Your task to perform on an android device: Open Wikipedia Image 0: 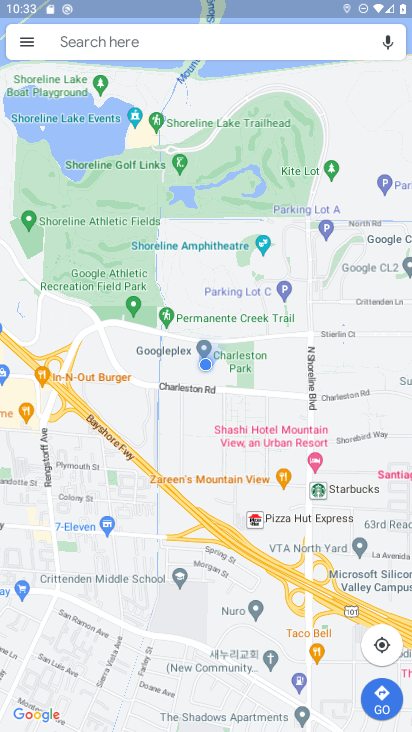
Step 0: press home button
Your task to perform on an android device: Open Wikipedia Image 1: 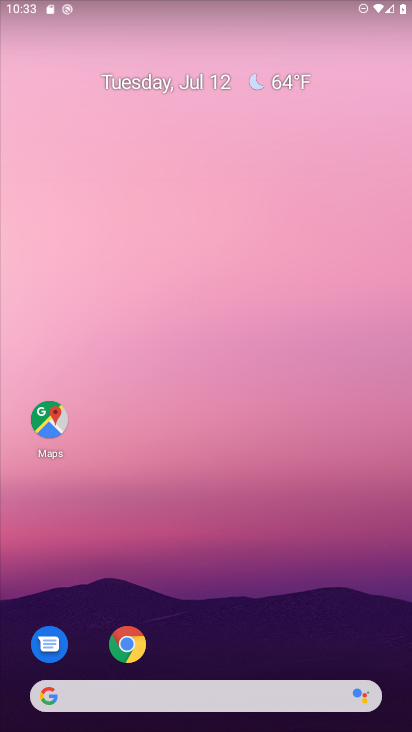
Step 1: click (153, 690)
Your task to perform on an android device: Open Wikipedia Image 2: 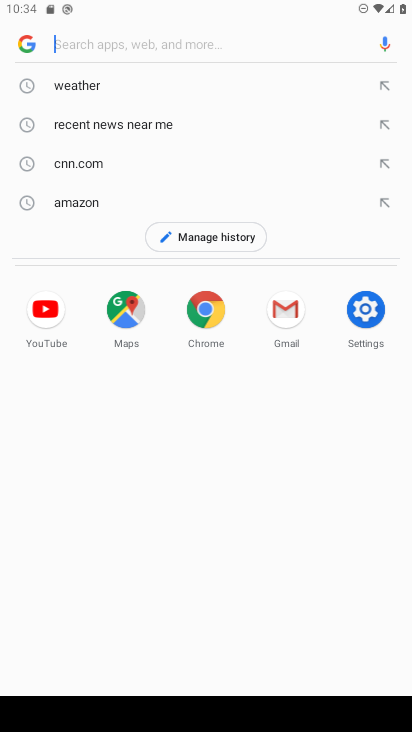
Step 2: type "wikipedia"
Your task to perform on an android device: Open Wikipedia Image 3: 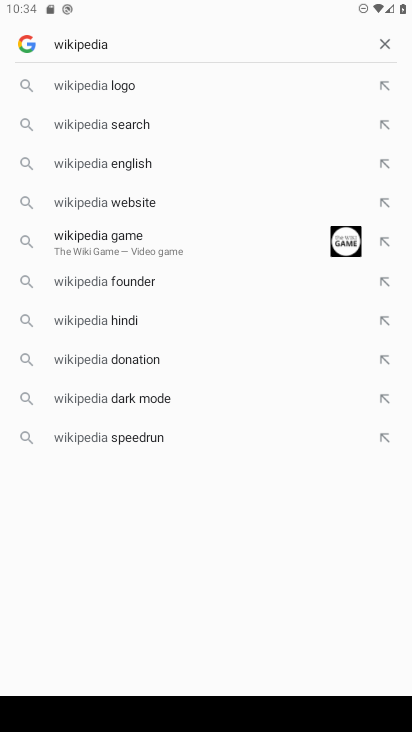
Step 3: click (108, 124)
Your task to perform on an android device: Open Wikipedia Image 4: 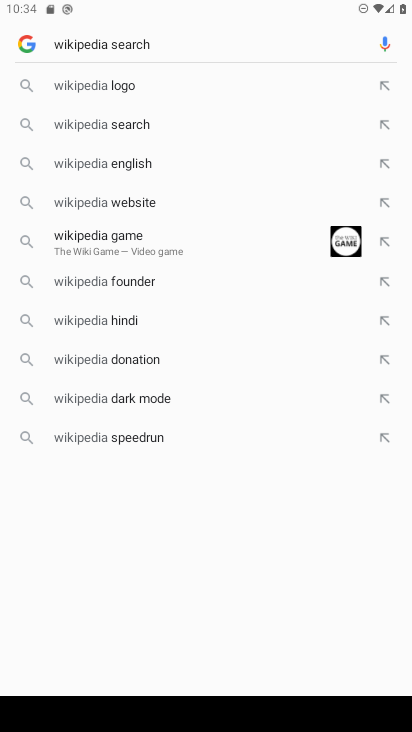
Step 4: task complete